Your task to perform on an android device: check out phone information Image 0: 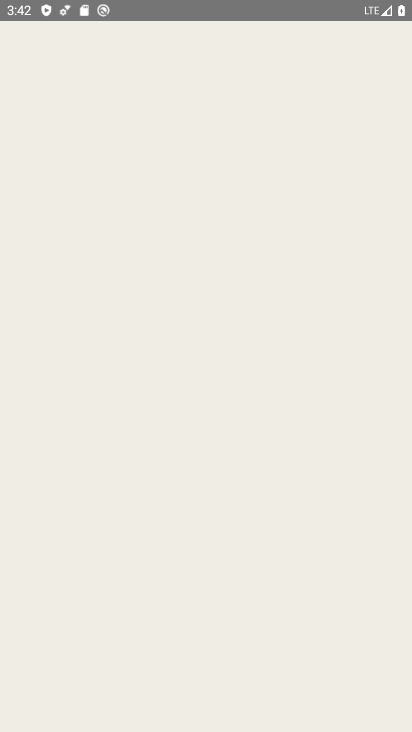
Step 0: press back button
Your task to perform on an android device: check out phone information Image 1: 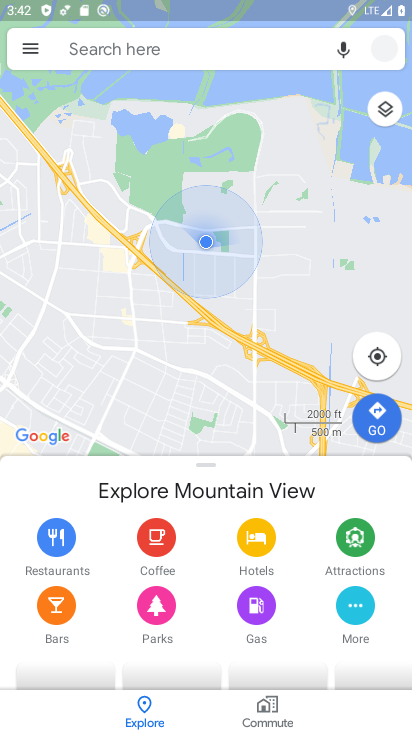
Step 1: press home button
Your task to perform on an android device: check out phone information Image 2: 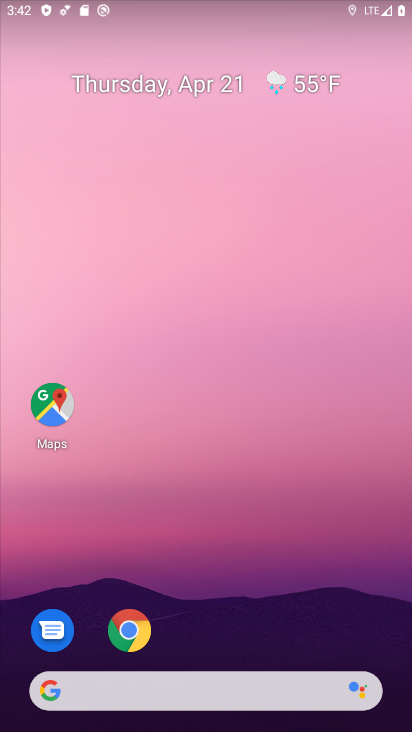
Step 2: drag from (232, 620) to (287, 62)
Your task to perform on an android device: check out phone information Image 3: 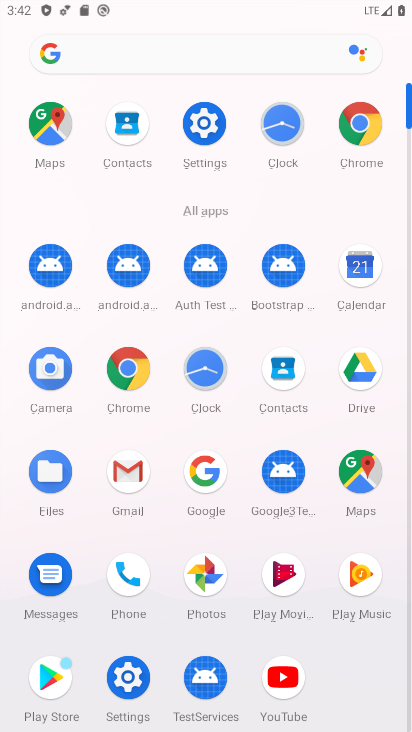
Step 3: click (210, 134)
Your task to perform on an android device: check out phone information Image 4: 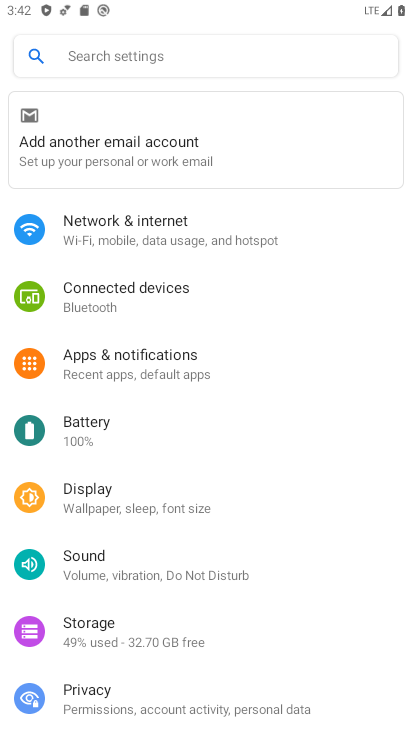
Step 4: drag from (182, 529) to (271, 100)
Your task to perform on an android device: check out phone information Image 5: 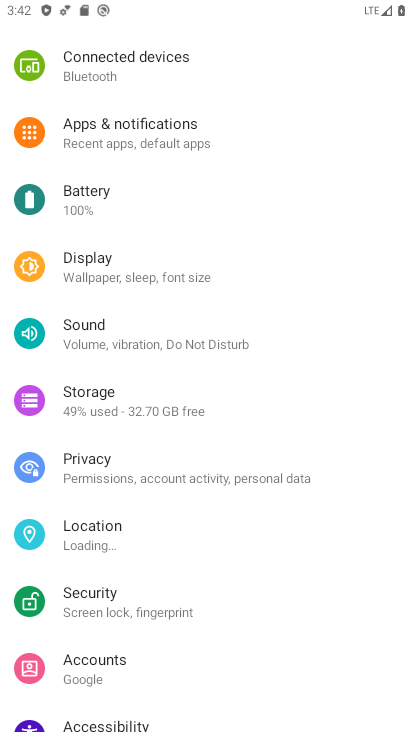
Step 5: drag from (156, 605) to (289, 132)
Your task to perform on an android device: check out phone information Image 6: 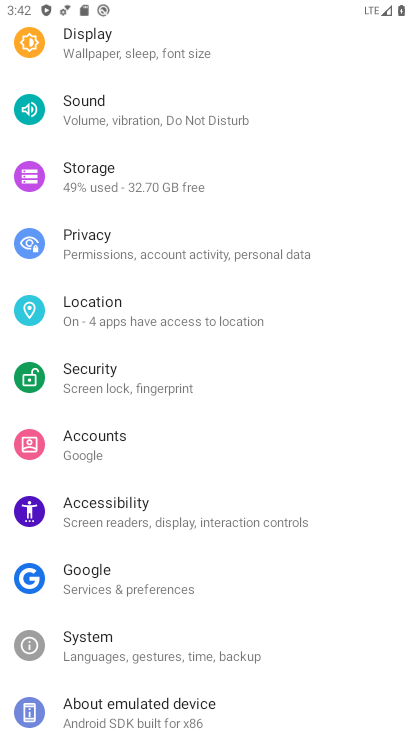
Step 6: drag from (178, 647) to (324, 41)
Your task to perform on an android device: check out phone information Image 7: 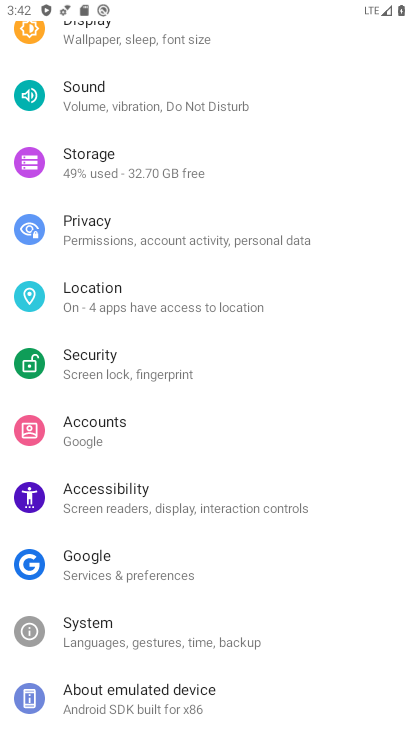
Step 7: click (162, 697)
Your task to perform on an android device: check out phone information Image 8: 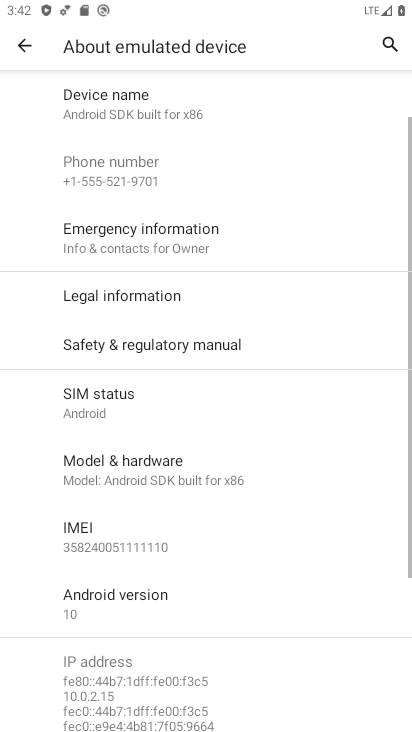
Step 8: task complete